Your task to perform on an android device: see tabs open on other devices in the chrome app Image 0: 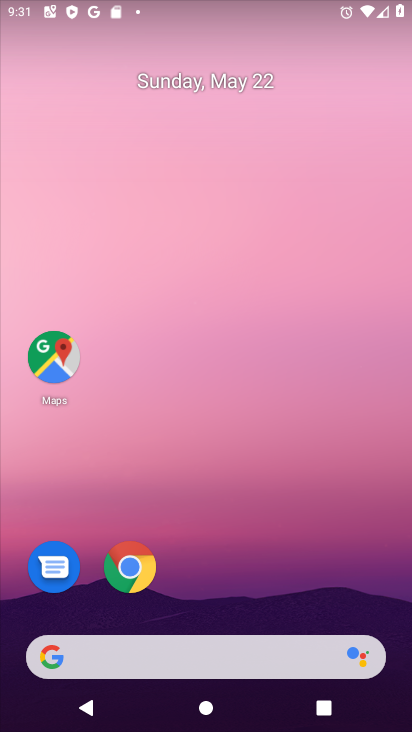
Step 0: drag from (176, 597) to (227, 25)
Your task to perform on an android device: see tabs open on other devices in the chrome app Image 1: 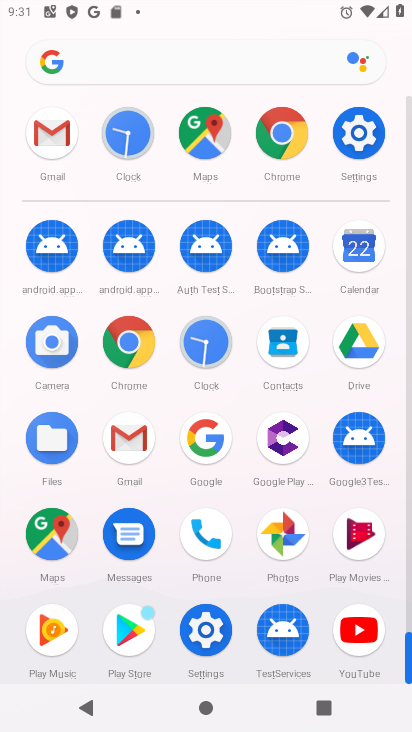
Step 1: click (133, 354)
Your task to perform on an android device: see tabs open on other devices in the chrome app Image 2: 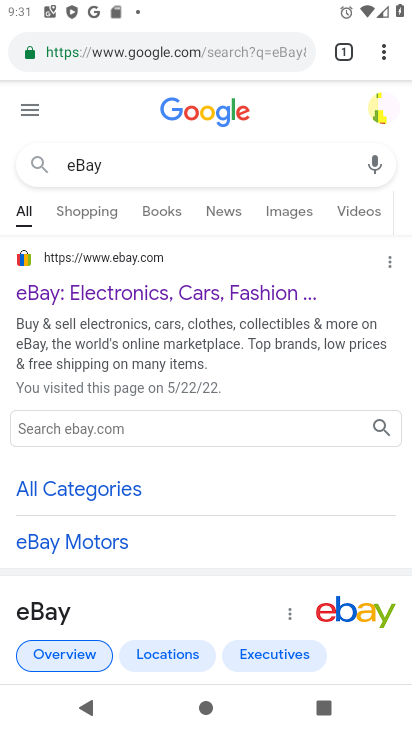
Step 2: click (376, 53)
Your task to perform on an android device: see tabs open on other devices in the chrome app Image 3: 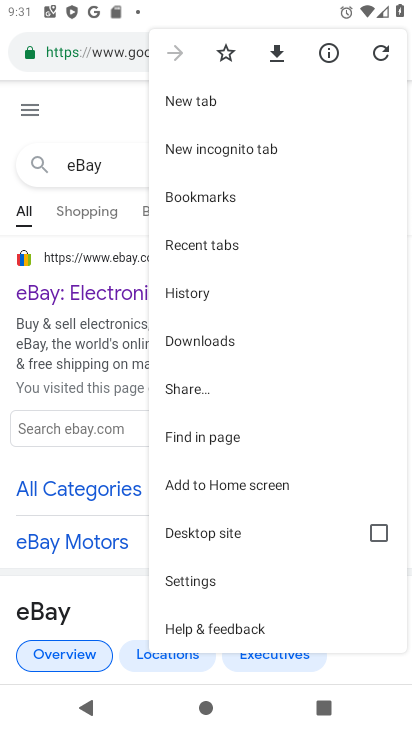
Step 3: drag from (222, 523) to (245, 326)
Your task to perform on an android device: see tabs open on other devices in the chrome app Image 4: 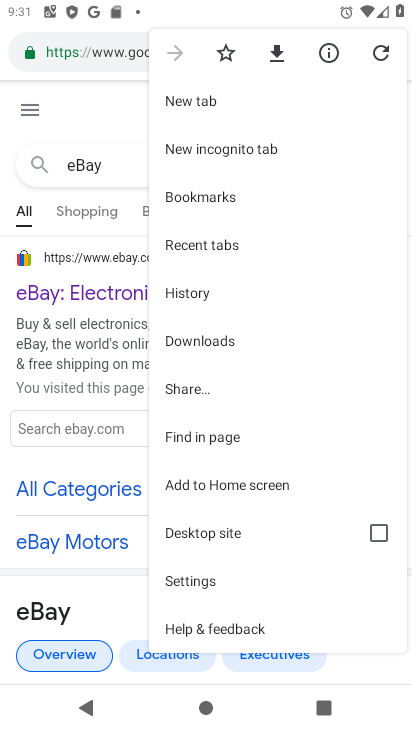
Step 4: click (216, 241)
Your task to perform on an android device: see tabs open on other devices in the chrome app Image 5: 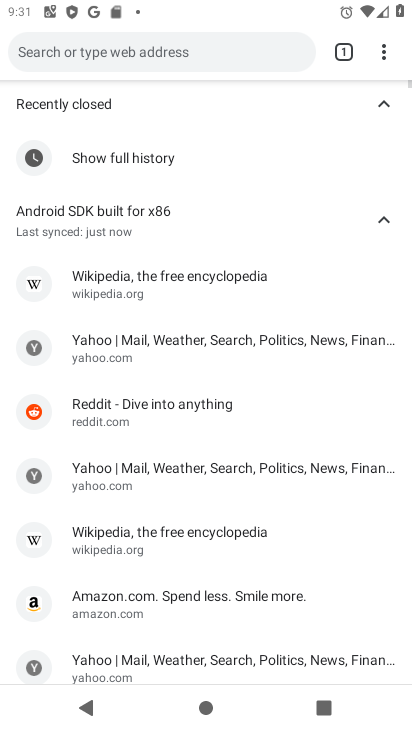
Step 5: task complete